Your task to perform on an android device: Go to Google Image 0: 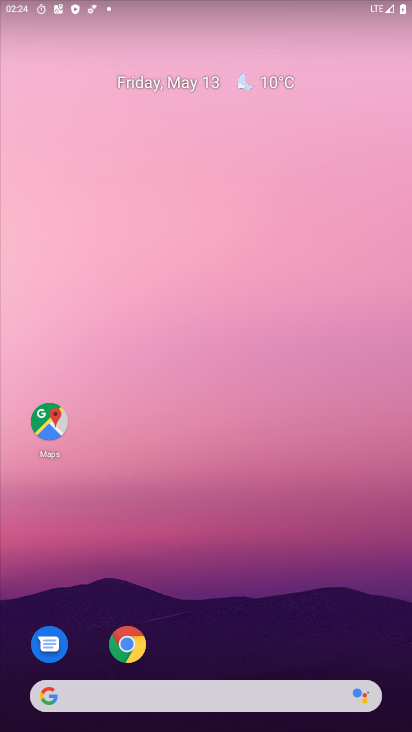
Step 0: drag from (198, 672) to (258, 18)
Your task to perform on an android device: Go to Google Image 1: 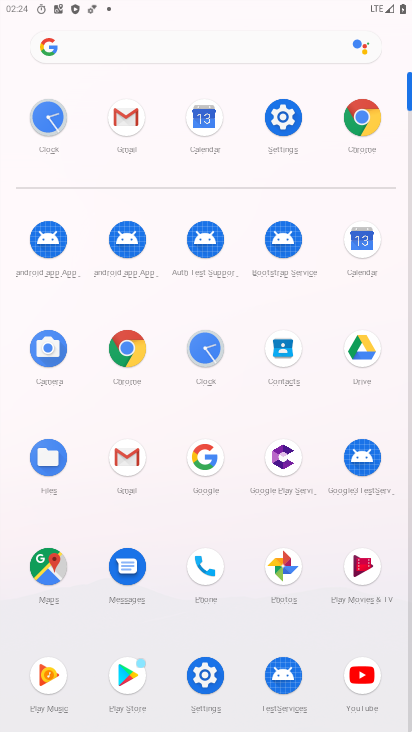
Step 1: click (123, 353)
Your task to perform on an android device: Go to Google Image 2: 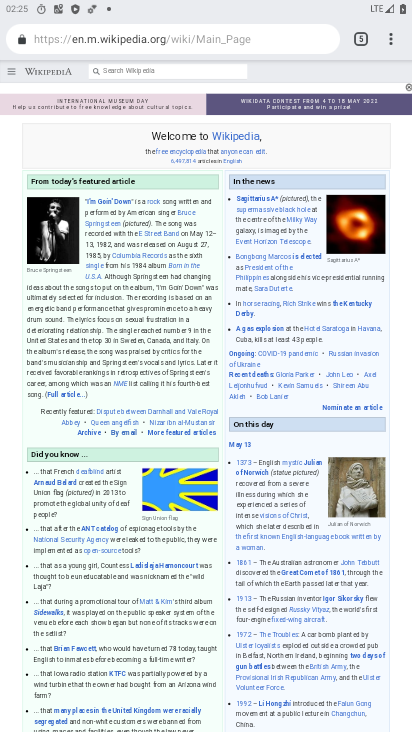
Step 2: click (392, 39)
Your task to perform on an android device: Go to Google Image 3: 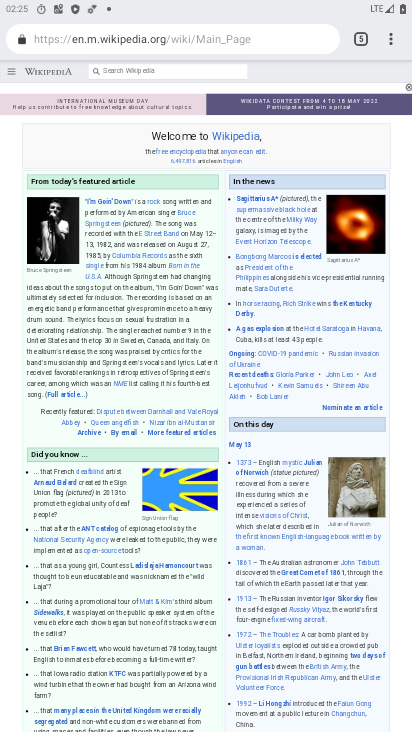
Step 3: task complete